Your task to perform on an android device: Show me popular videos on Youtube Image 0: 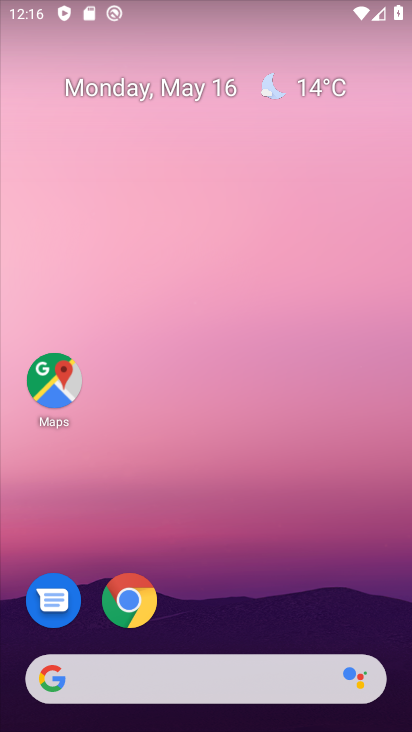
Step 0: drag from (240, 608) to (268, 46)
Your task to perform on an android device: Show me popular videos on Youtube Image 1: 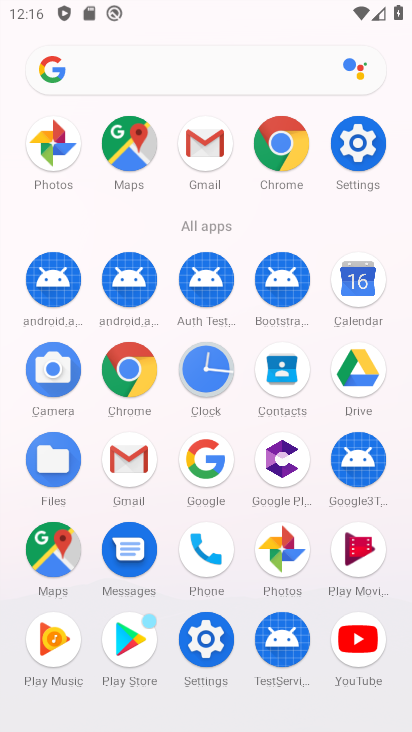
Step 1: click (356, 641)
Your task to perform on an android device: Show me popular videos on Youtube Image 2: 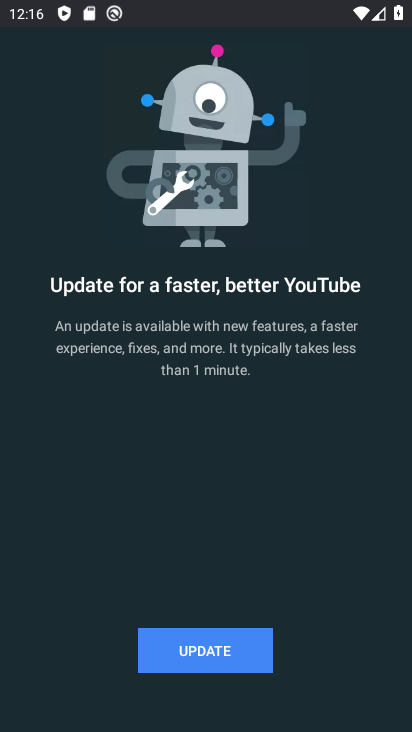
Step 2: click (182, 650)
Your task to perform on an android device: Show me popular videos on Youtube Image 3: 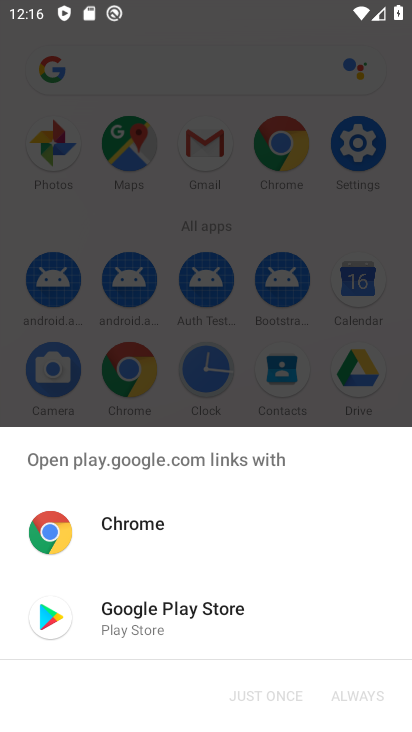
Step 3: click (160, 603)
Your task to perform on an android device: Show me popular videos on Youtube Image 4: 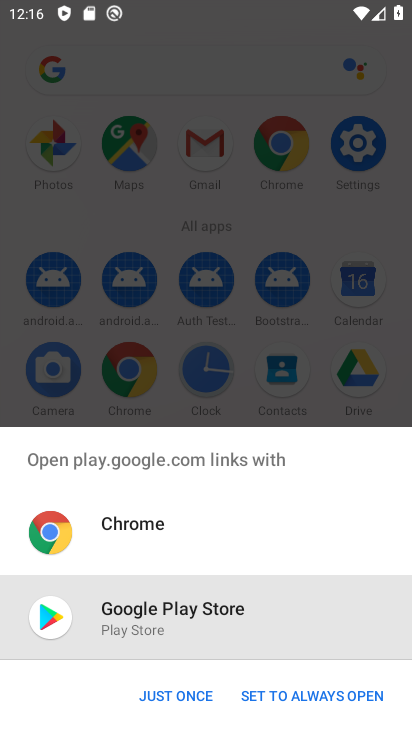
Step 4: click (175, 699)
Your task to perform on an android device: Show me popular videos on Youtube Image 5: 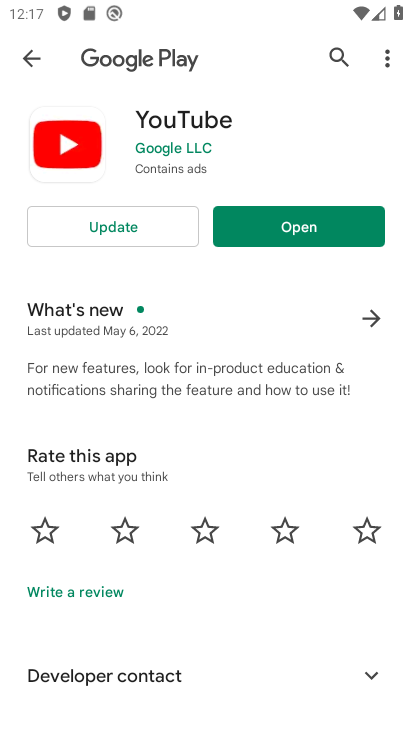
Step 5: click (164, 233)
Your task to perform on an android device: Show me popular videos on Youtube Image 6: 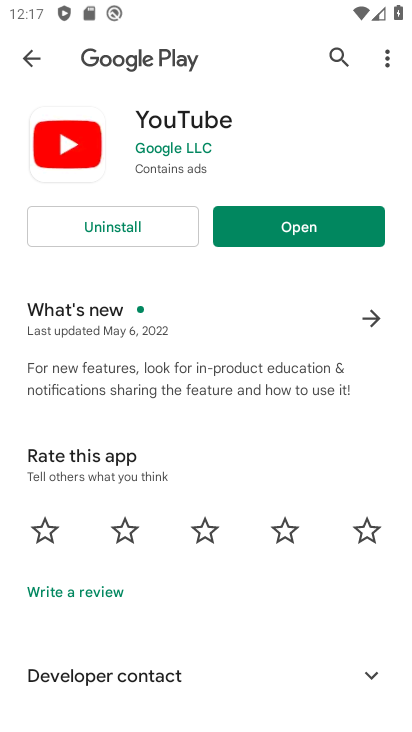
Step 6: click (266, 228)
Your task to perform on an android device: Show me popular videos on Youtube Image 7: 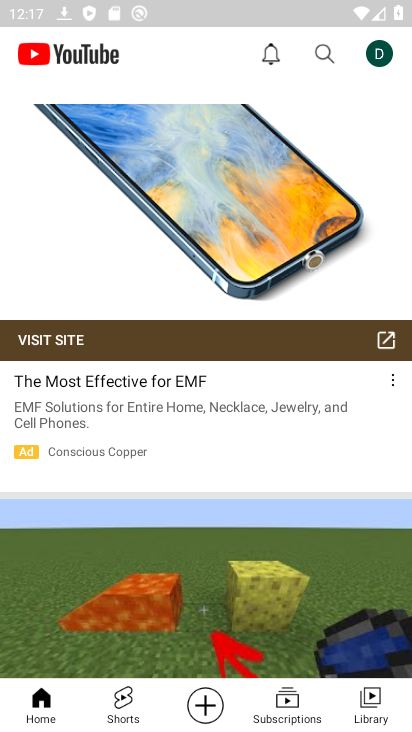
Step 7: click (322, 47)
Your task to perform on an android device: Show me popular videos on Youtube Image 8: 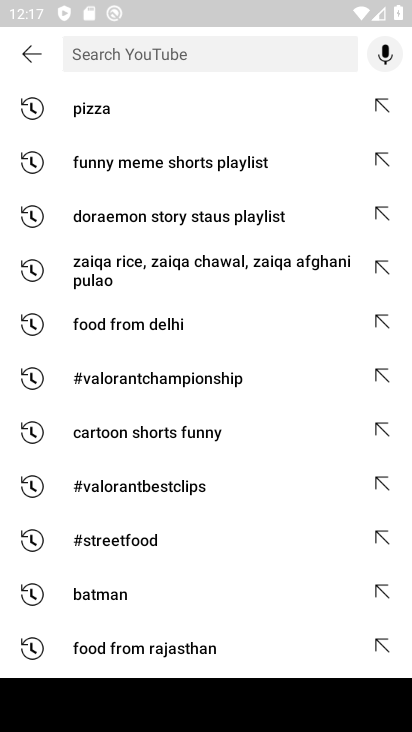
Step 8: type " popular videos "
Your task to perform on an android device: Show me popular videos on Youtube Image 9: 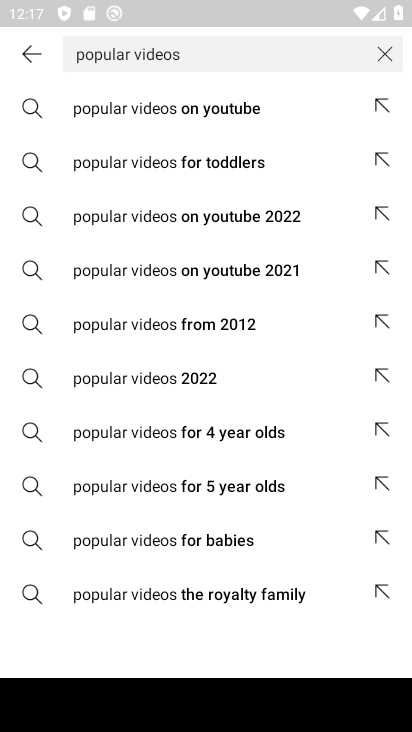
Step 9: click (193, 106)
Your task to perform on an android device: Show me popular videos on Youtube Image 10: 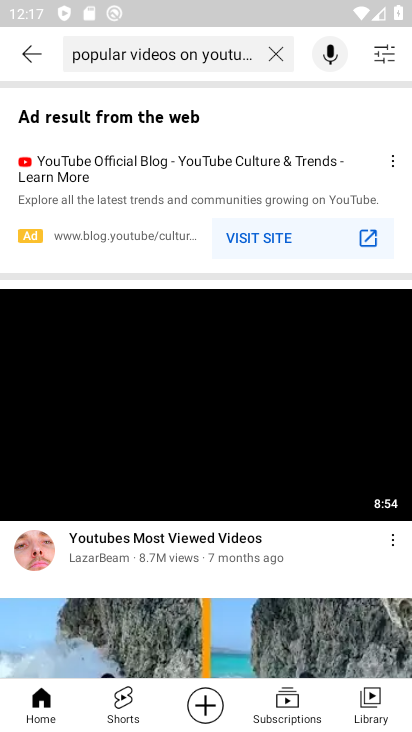
Step 10: task complete